Your task to perform on an android device: Open settings Image 0: 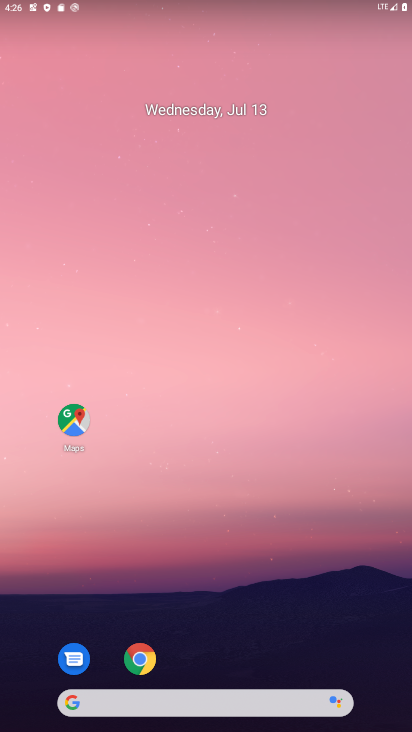
Step 0: drag from (224, 430) to (261, 185)
Your task to perform on an android device: Open settings Image 1: 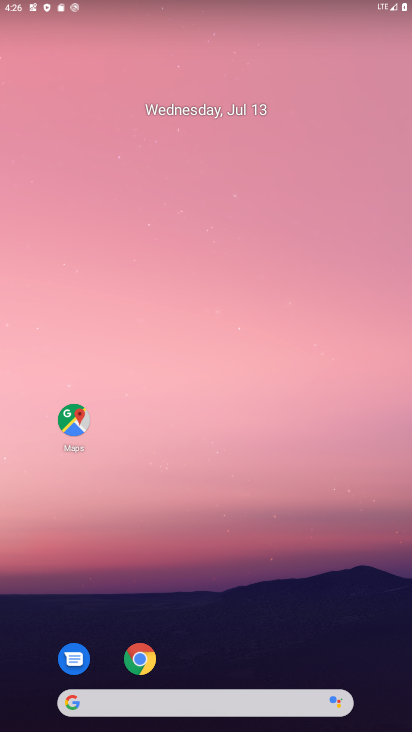
Step 1: drag from (212, 524) to (253, 103)
Your task to perform on an android device: Open settings Image 2: 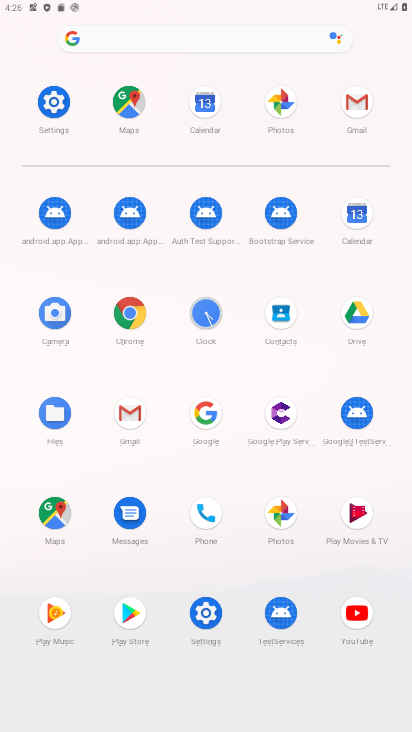
Step 2: click (53, 101)
Your task to perform on an android device: Open settings Image 3: 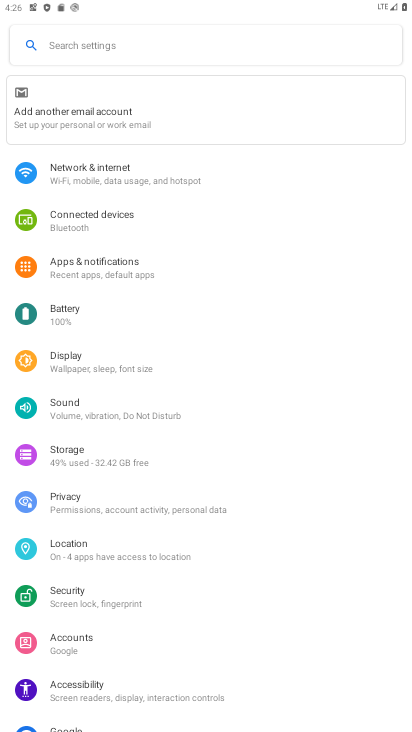
Step 3: task complete